Your task to perform on an android device: Set the phone to "Do not disturb". Image 0: 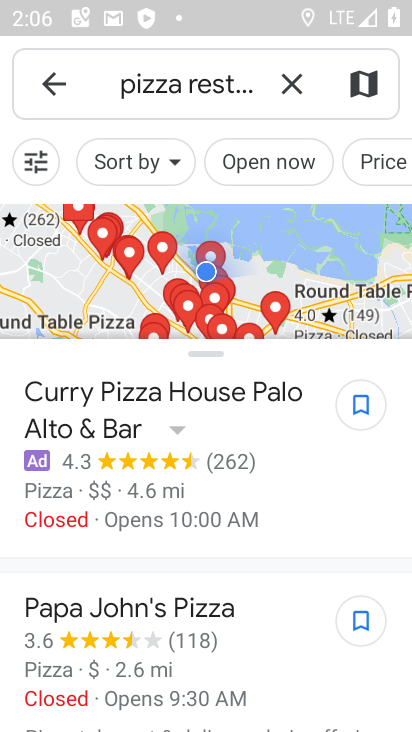
Step 0: press home button
Your task to perform on an android device: Set the phone to "Do not disturb". Image 1: 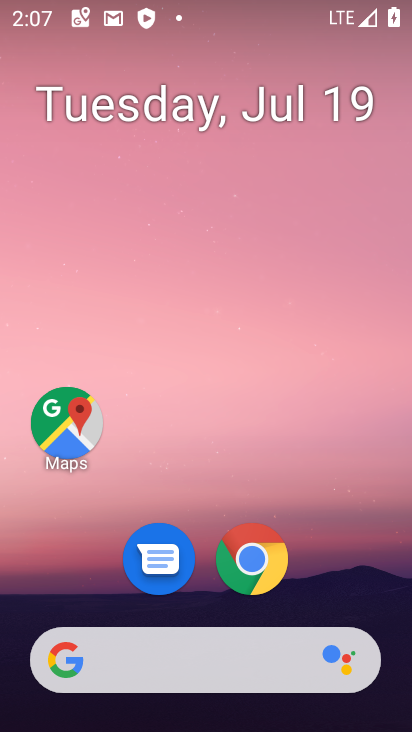
Step 1: drag from (244, 636) to (408, 168)
Your task to perform on an android device: Set the phone to "Do not disturb". Image 2: 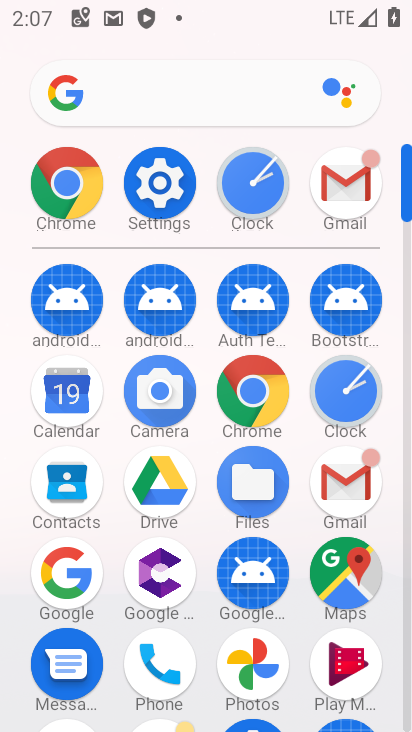
Step 2: drag from (243, 26) to (193, 397)
Your task to perform on an android device: Set the phone to "Do not disturb". Image 3: 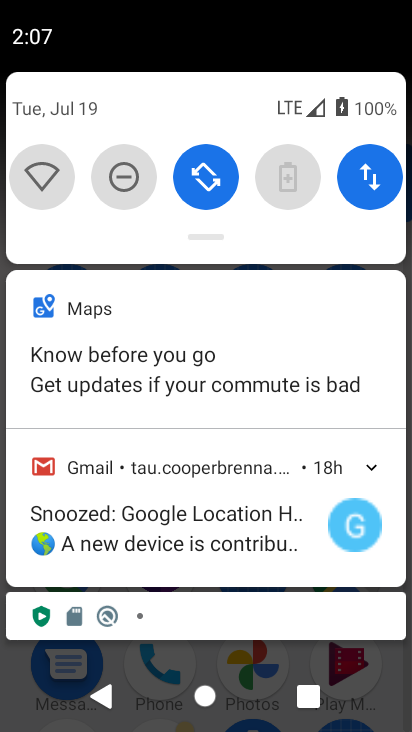
Step 3: click (127, 168)
Your task to perform on an android device: Set the phone to "Do not disturb". Image 4: 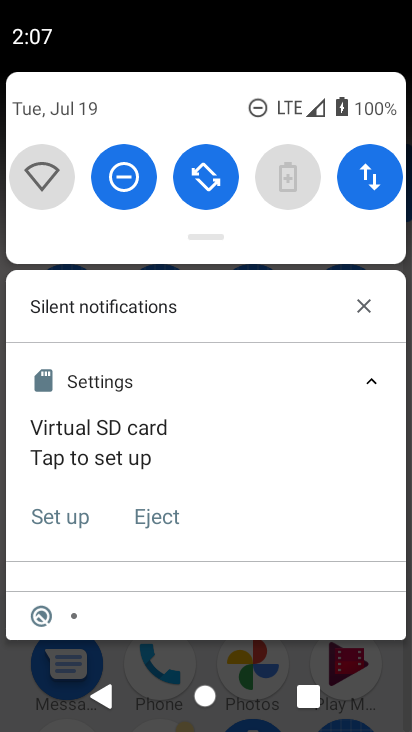
Step 4: task complete